Your task to perform on an android device: Open Google Chrome and open the bookmarks view Image 0: 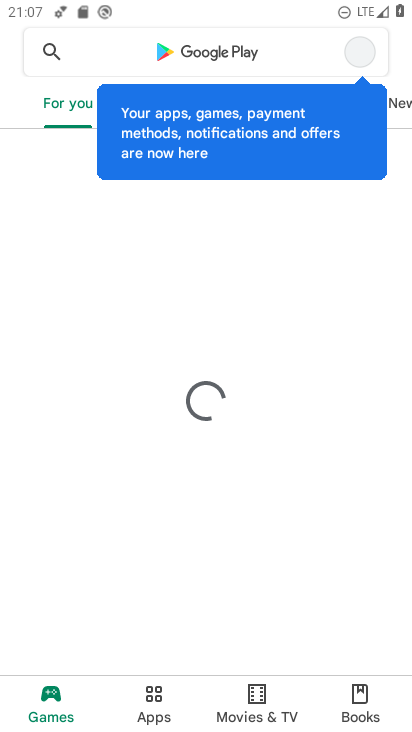
Step 0: drag from (248, 501) to (281, 233)
Your task to perform on an android device: Open Google Chrome and open the bookmarks view Image 1: 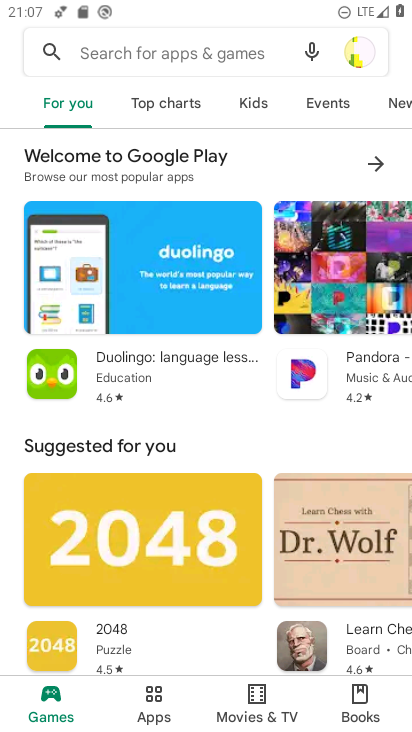
Step 1: drag from (285, 634) to (54, 11)
Your task to perform on an android device: Open Google Chrome and open the bookmarks view Image 2: 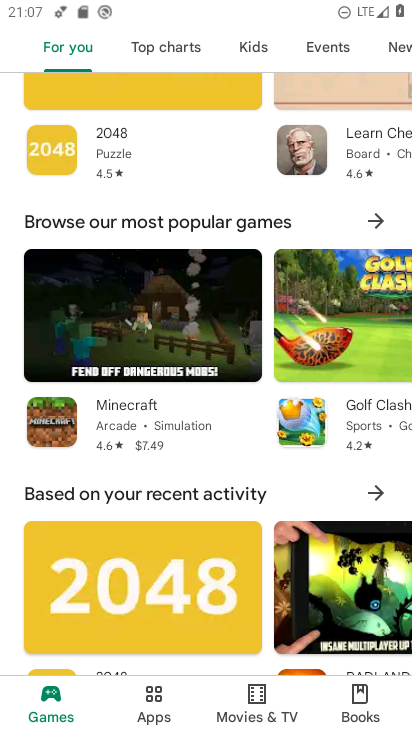
Step 2: drag from (263, 183) to (339, 580)
Your task to perform on an android device: Open Google Chrome and open the bookmarks view Image 3: 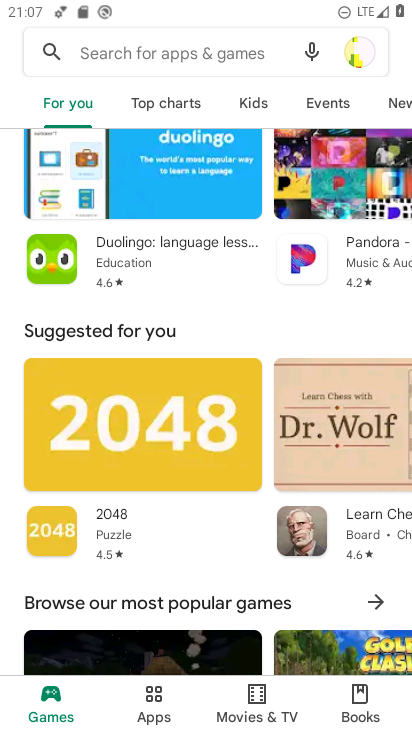
Step 3: press home button
Your task to perform on an android device: Open Google Chrome and open the bookmarks view Image 4: 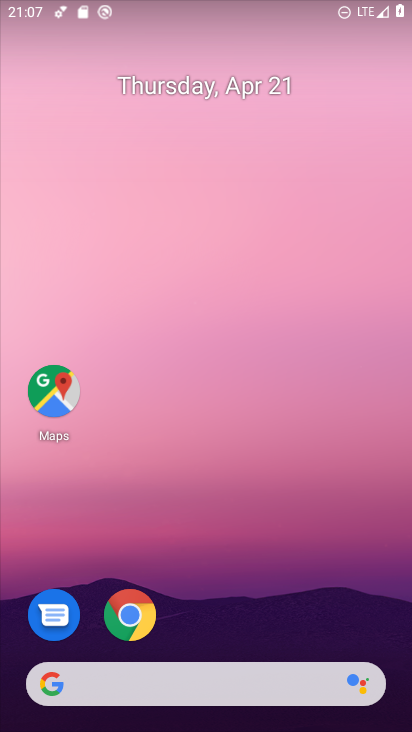
Step 4: click (119, 627)
Your task to perform on an android device: Open Google Chrome and open the bookmarks view Image 5: 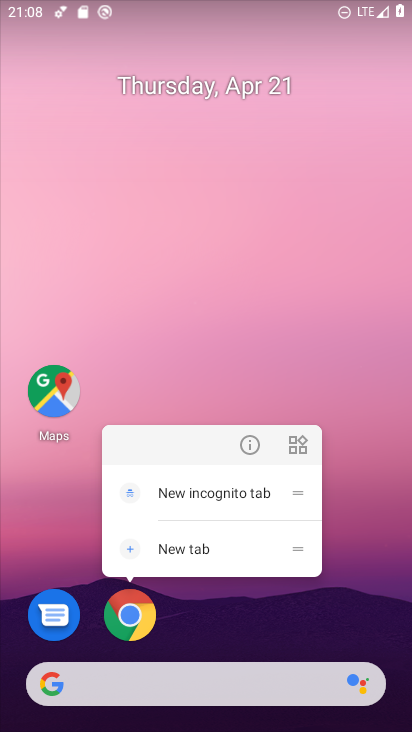
Step 5: click (243, 452)
Your task to perform on an android device: Open Google Chrome and open the bookmarks view Image 6: 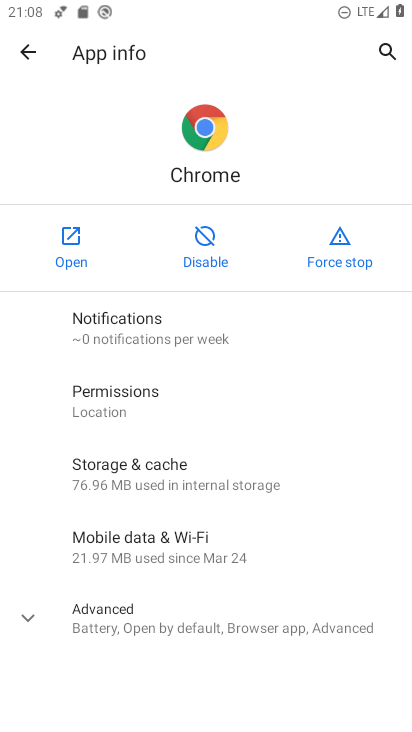
Step 6: click (68, 242)
Your task to perform on an android device: Open Google Chrome and open the bookmarks view Image 7: 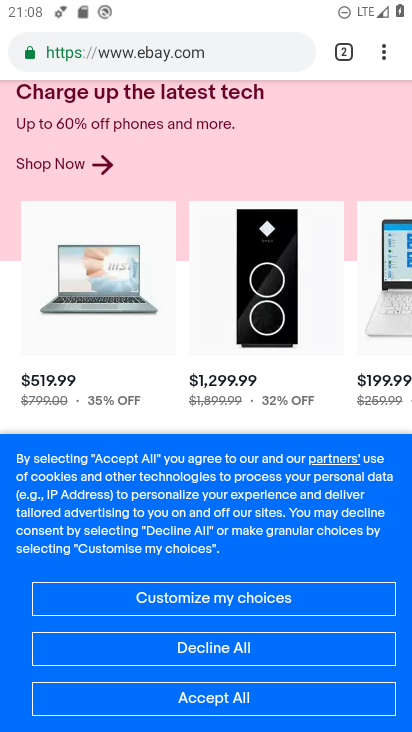
Step 7: drag from (334, 82) to (343, 328)
Your task to perform on an android device: Open Google Chrome and open the bookmarks view Image 8: 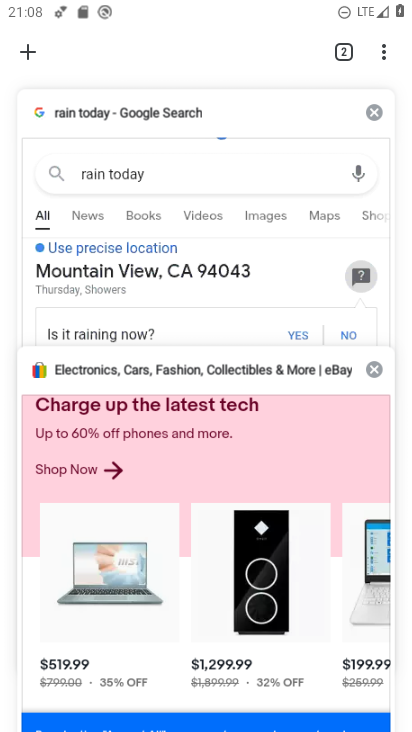
Step 8: click (379, 62)
Your task to perform on an android device: Open Google Chrome and open the bookmarks view Image 9: 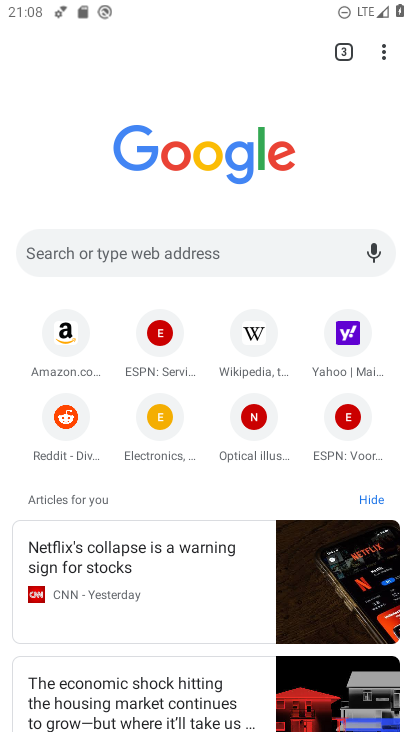
Step 9: task complete